Your task to perform on an android device: Go to Maps Image 0: 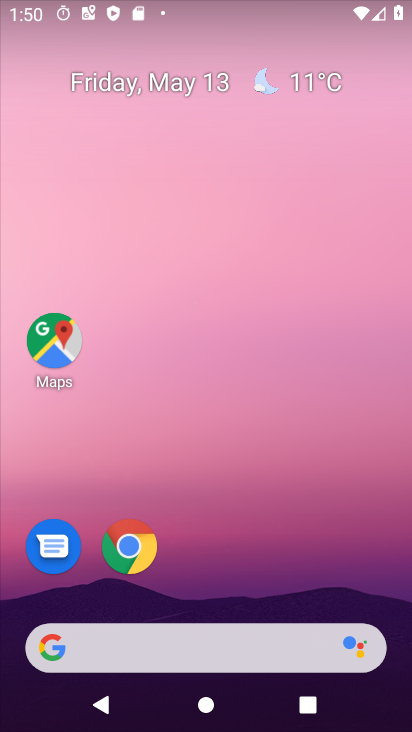
Step 0: drag from (203, 566) to (255, 8)
Your task to perform on an android device: Go to Maps Image 1: 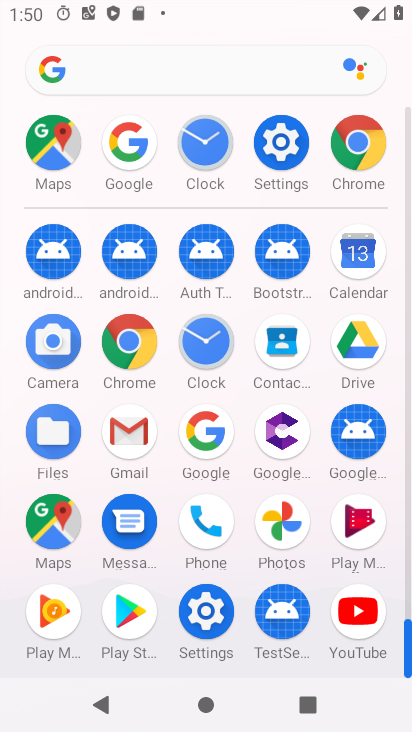
Step 1: click (50, 534)
Your task to perform on an android device: Go to Maps Image 2: 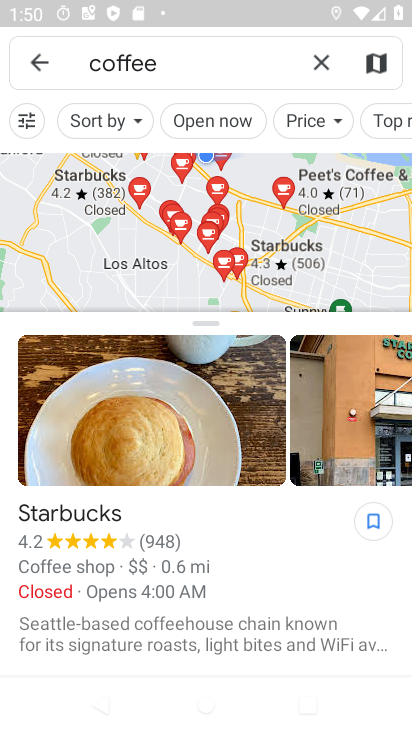
Step 2: task complete